Your task to perform on an android device: open app "PlayWell" (install if not already installed), go to login, and select forgot password Image 0: 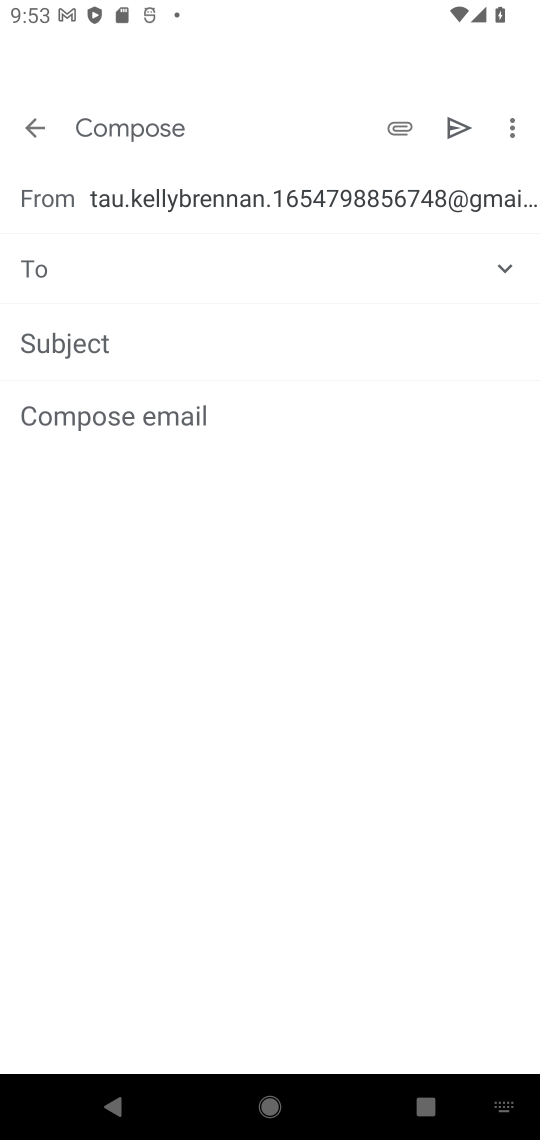
Step 0: press home button
Your task to perform on an android device: open app "PlayWell" (install if not already installed), go to login, and select forgot password Image 1: 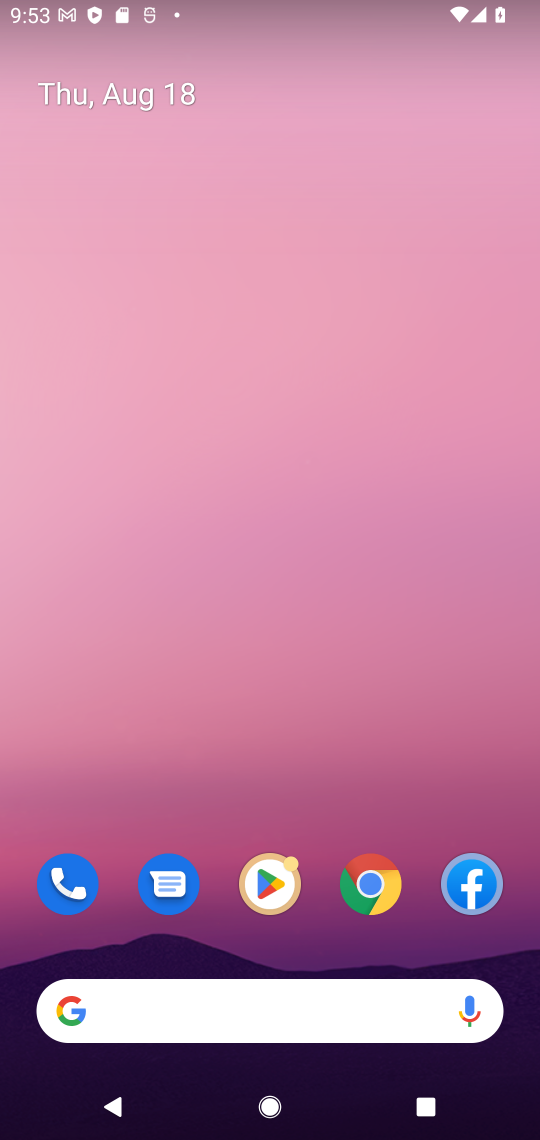
Step 1: click (278, 902)
Your task to perform on an android device: open app "PlayWell" (install if not already installed), go to login, and select forgot password Image 2: 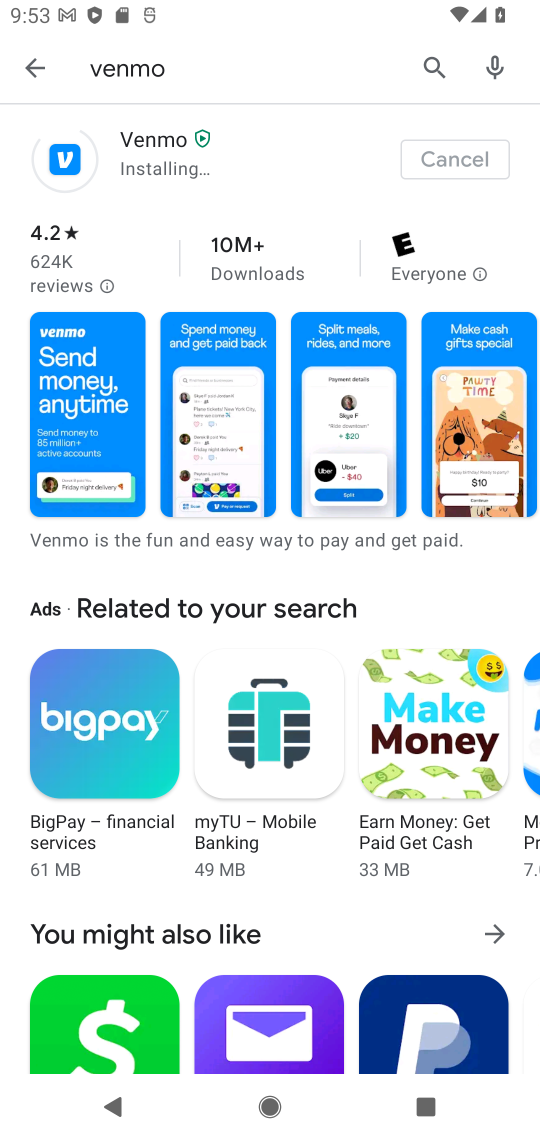
Step 2: click (435, 89)
Your task to perform on an android device: open app "PlayWell" (install if not already installed), go to login, and select forgot password Image 3: 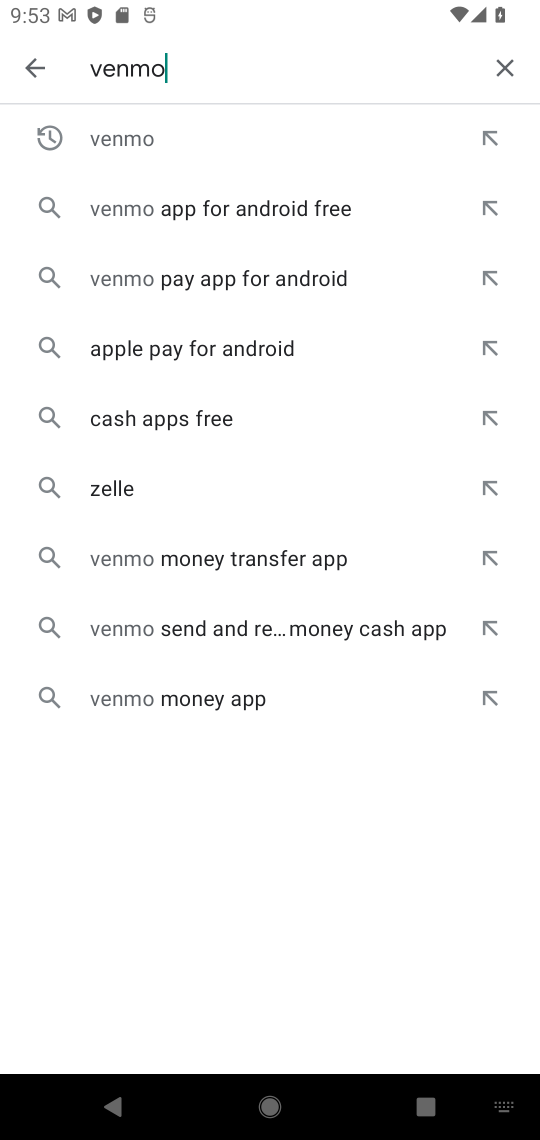
Step 3: click (492, 79)
Your task to perform on an android device: open app "PlayWell" (install if not already installed), go to login, and select forgot password Image 4: 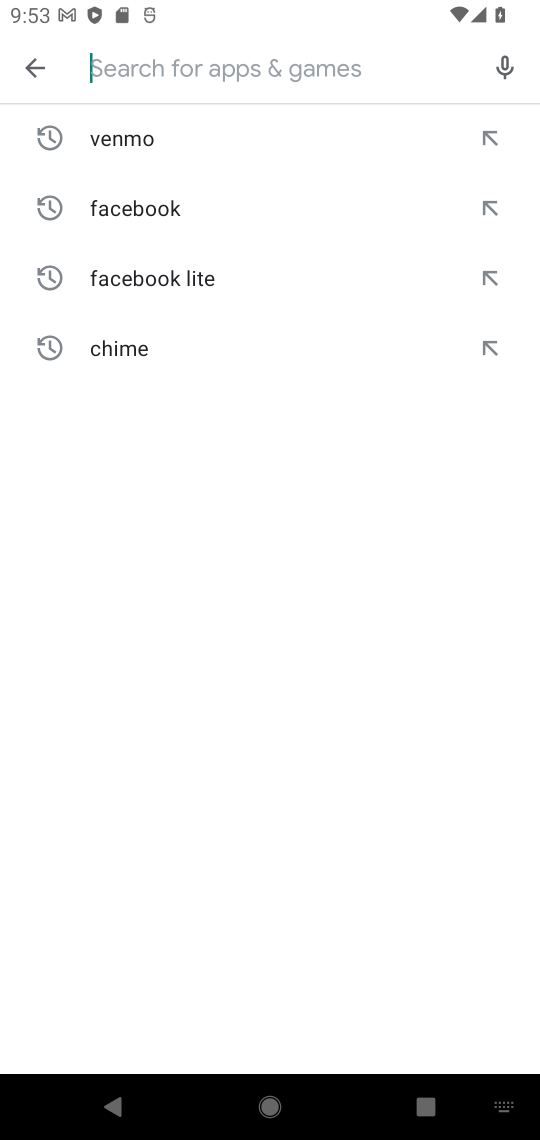
Step 4: type "playwell"
Your task to perform on an android device: open app "PlayWell" (install if not already installed), go to login, and select forgot password Image 5: 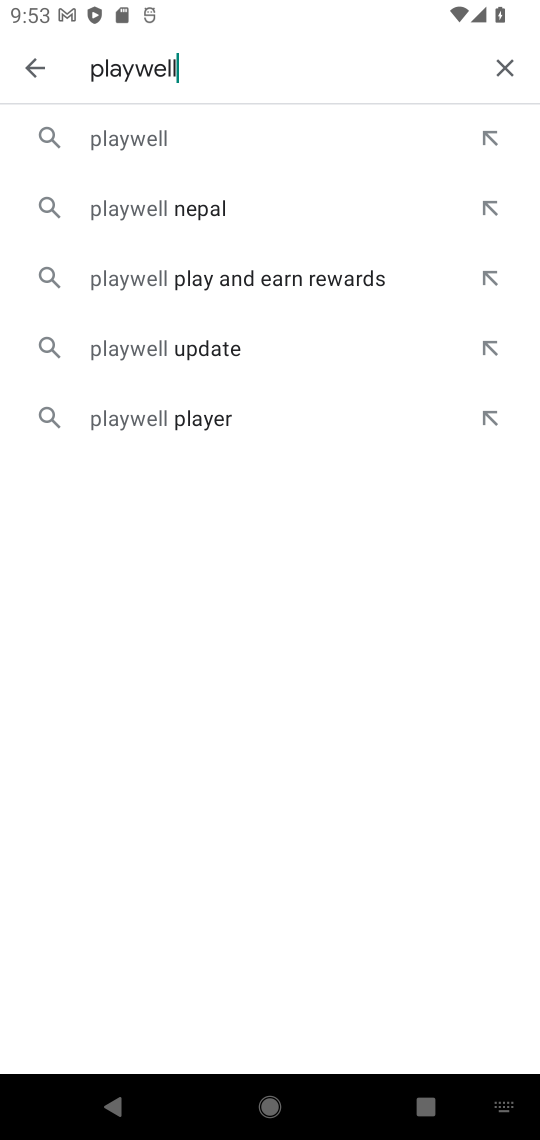
Step 5: click (318, 128)
Your task to perform on an android device: open app "PlayWell" (install if not already installed), go to login, and select forgot password Image 6: 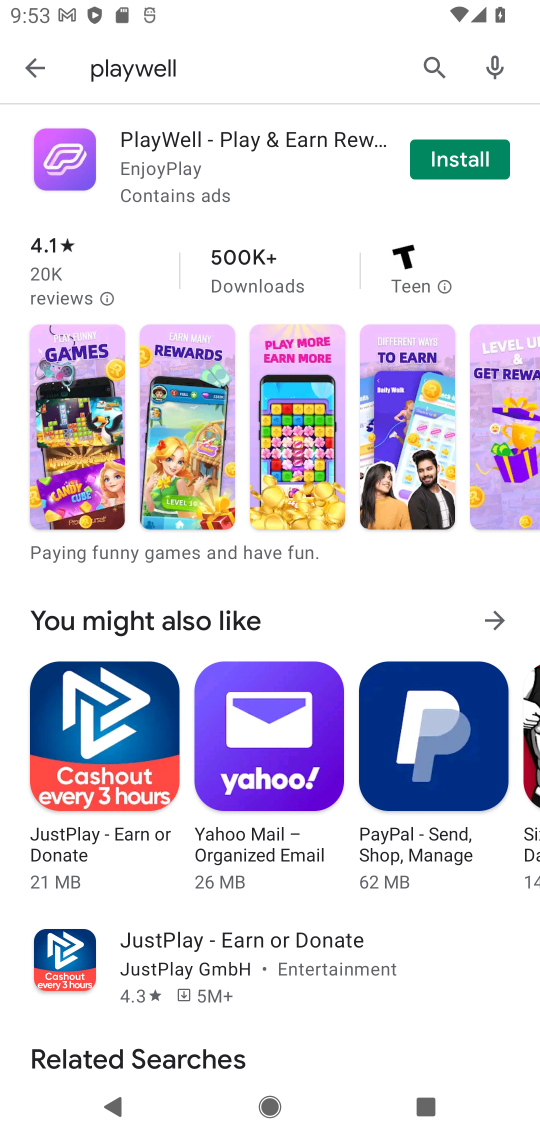
Step 6: click (466, 174)
Your task to perform on an android device: open app "PlayWell" (install if not already installed), go to login, and select forgot password Image 7: 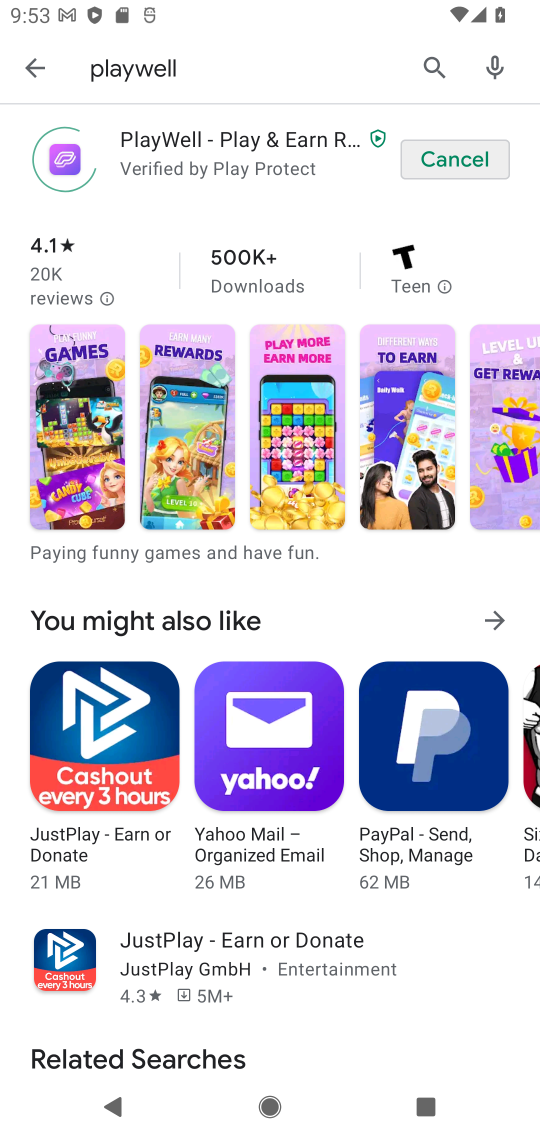
Step 7: task complete